Your task to perform on an android device: Open accessibility settings Image 0: 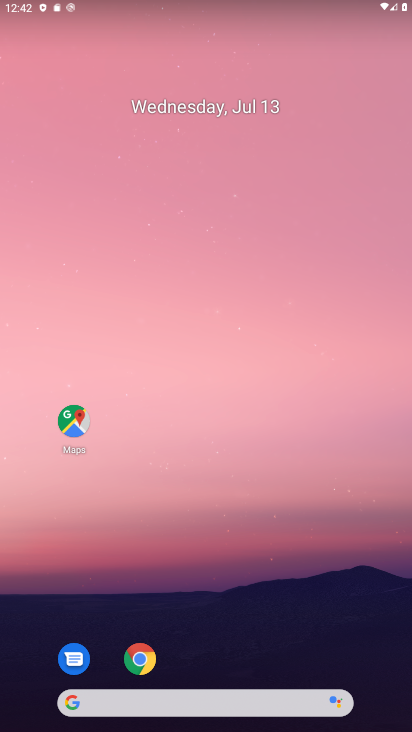
Step 0: drag from (240, 452) to (292, 452)
Your task to perform on an android device: Open accessibility settings Image 1: 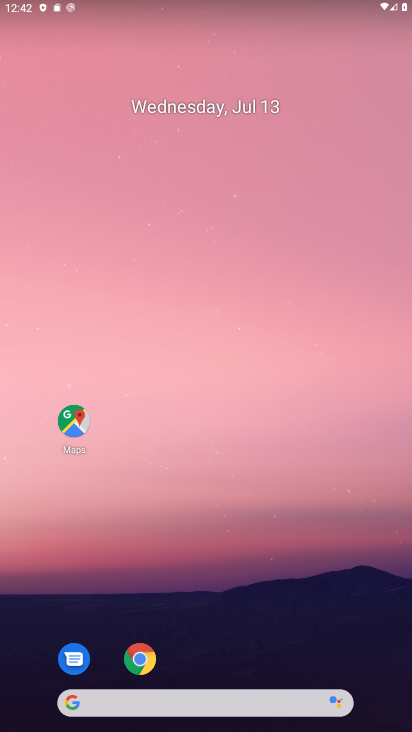
Step 1: drag from (205, 600) to (303, 50)
Your task to perform on an android device: Open accessibility settings Image 2: 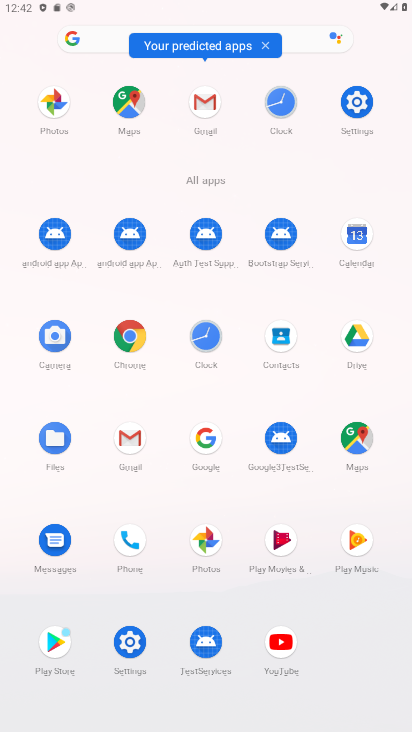
Step 2: click (129, 653)
Your task to perform on an android device: Open accessibility settings Image 3: 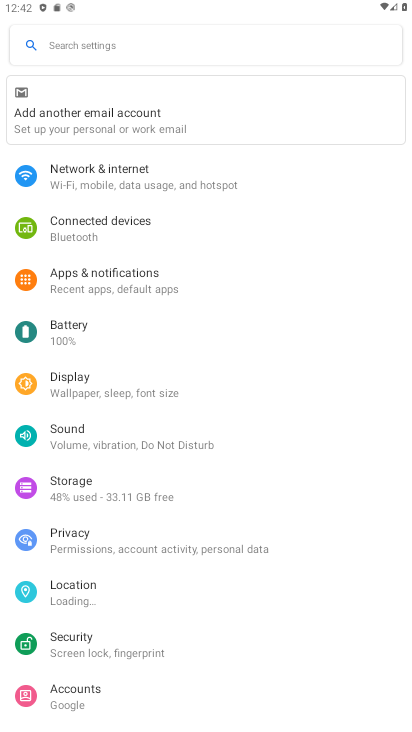
Step 3: drag from (138, 595) to (210, 142)
Your task to perform on an android device: Open accessibility settings Image 4: 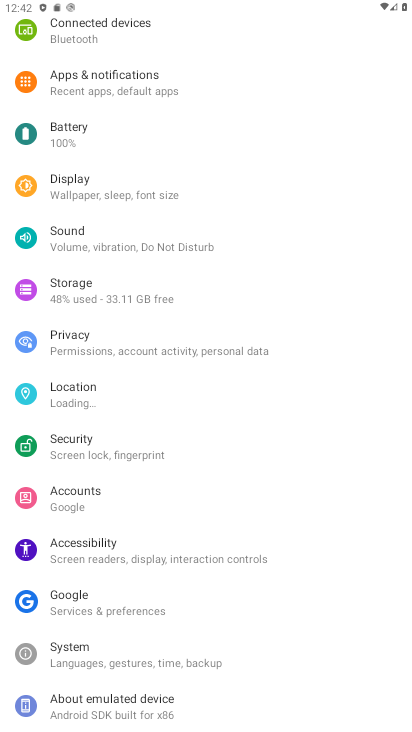
Step 4: click (114, 544)
Your task to perform on an android device: Open accessibility settings Image 5: 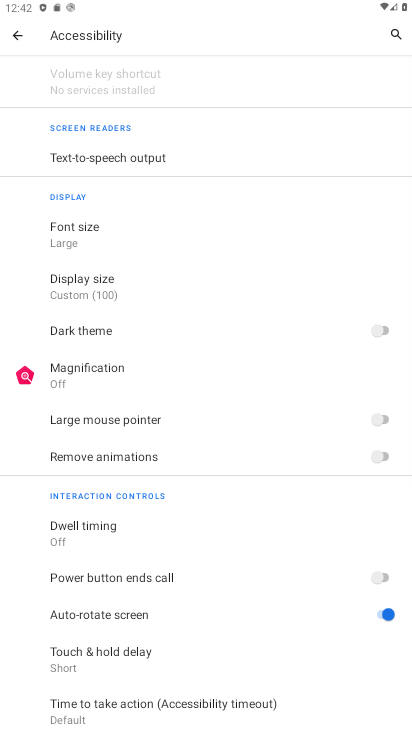
Step 5: drag from (134, 554) to (223, 147)
Your task to perform on an android device: Open accessibility settings Image 6: 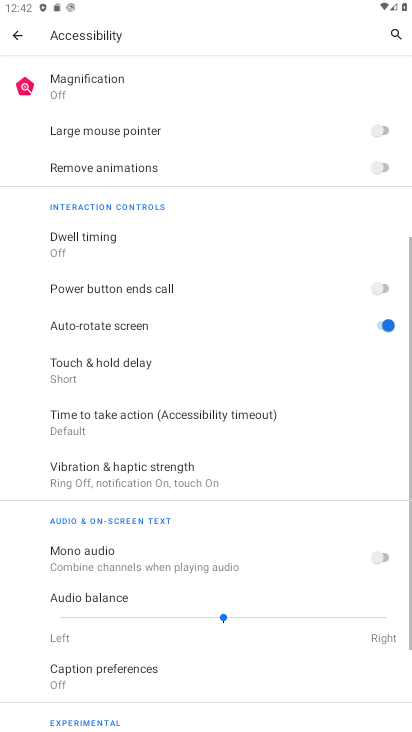
Step 6: drag from (70, 504) to (243, 212)
Your task to perform on an android device: Open accessibility settings Image 7: 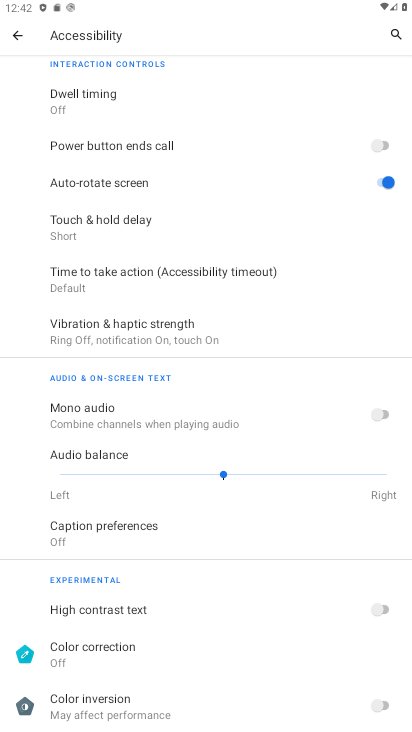
Step 7: click (250, 197)
Your task to perform on an android device: Open accessibility settings Image 8: 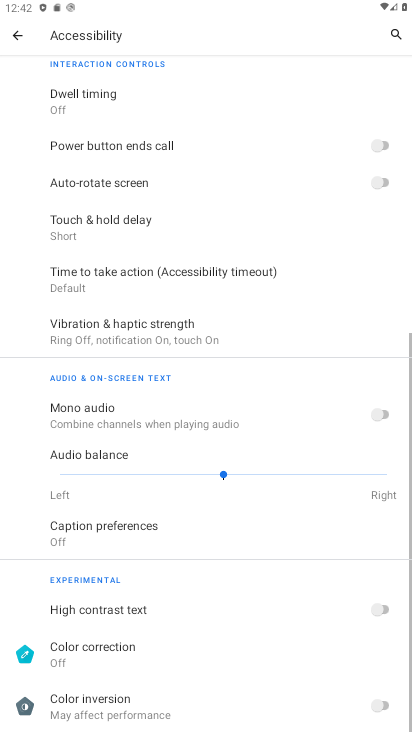
Step 8: task complete